Your task to perform on an android device: Open calendar and show me the second week of next month Image 0: 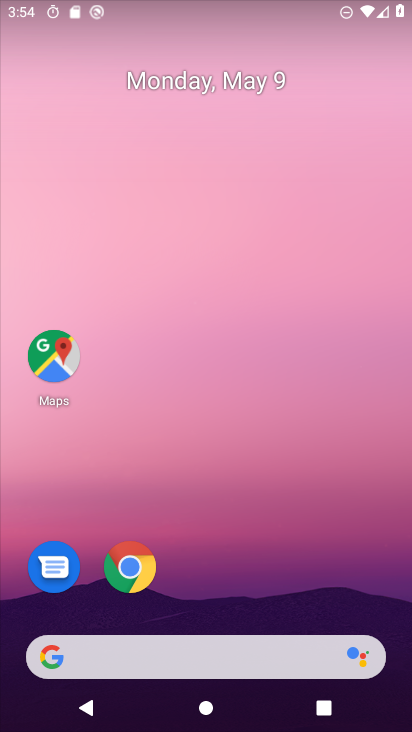
Step 0: click (227, 87)
Your task to perform on an android device: Open calendar and show me the second week of next month Image 1: 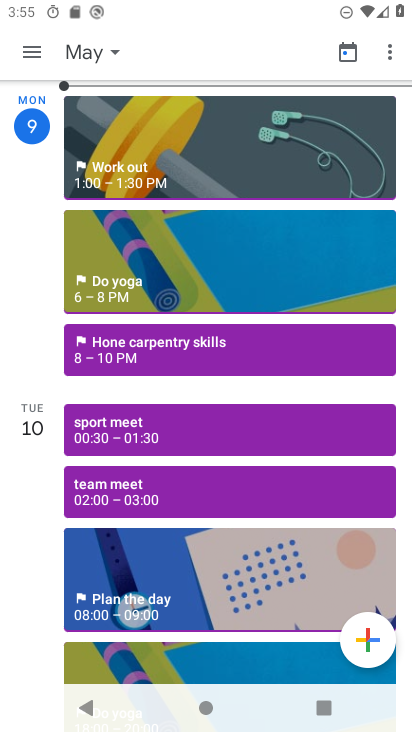
Step 1: click (109, 58)
Your task to perform on an android device: Open calendar and show me the second week of next month Image 2: 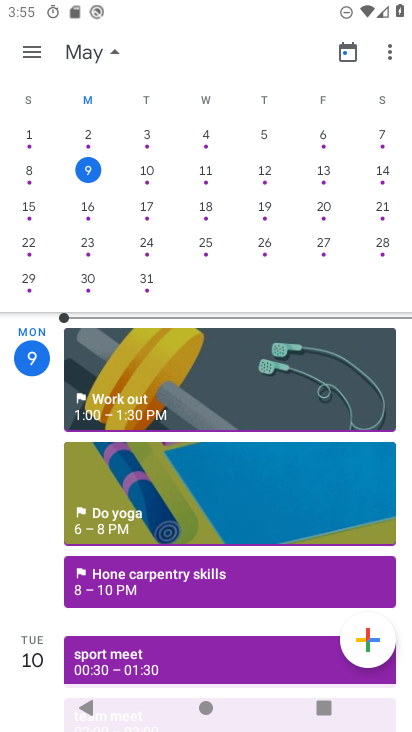
Step 2: click (30, 55)
Your task to perform on an android device: Open calendar and show me the second week of next month Image 3: 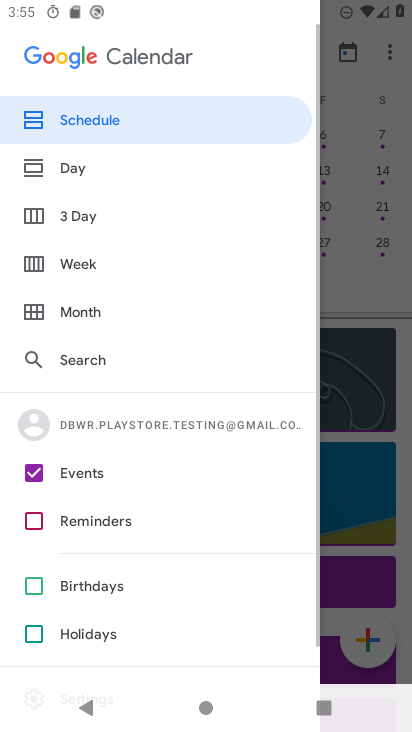
Step 3: click (75, 263)
Your task to perform on an android device: Open calendar and show me the second week of next month Image 4: 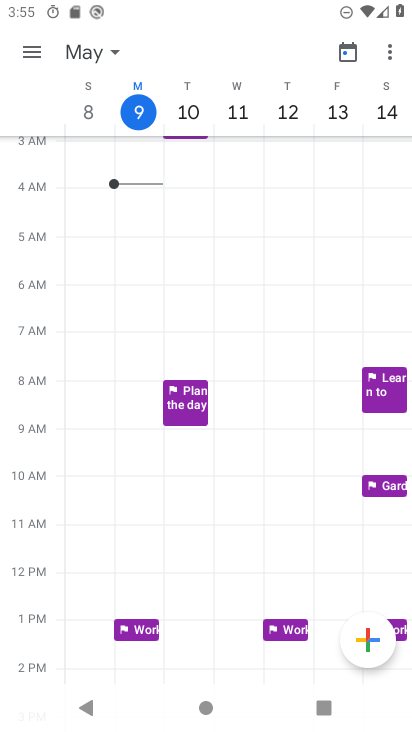
Step 4: click (103, 55)
Your task to perform on an android device: Open calendar and show me the second week of next month Image 5: 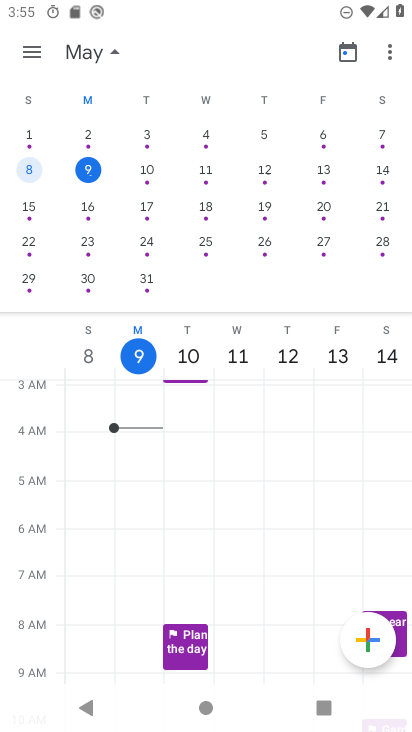
Step 5: drag from (293, 179) to (117, 207)
Your task to perform on an android device: Open calendar and show me the second week of next month Image 6: 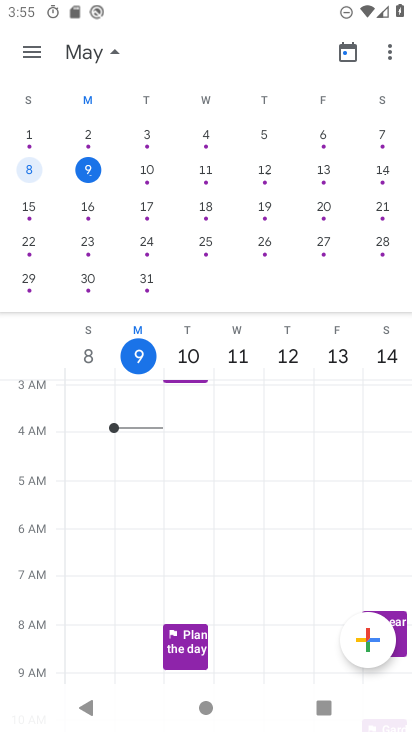
Step 6: drag from (340, 200) to (0, 182)
Your task to perform on an android device: Open calendar and show me the second week of next month Image 7: 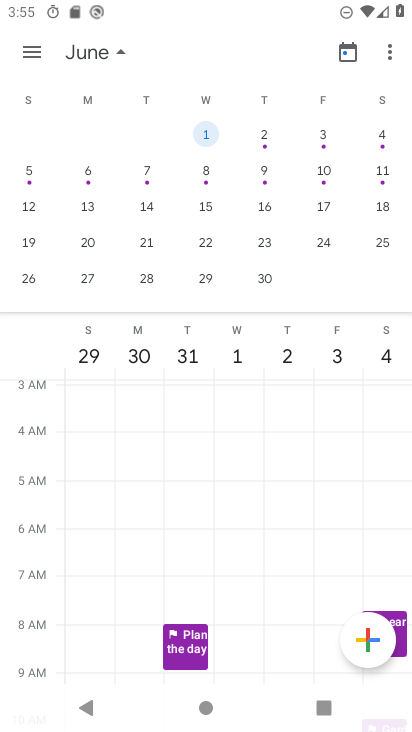
Step 7: click (88, 175)
Your task to perform on an android device: Open calendar and show me the second week of next month Image 8: 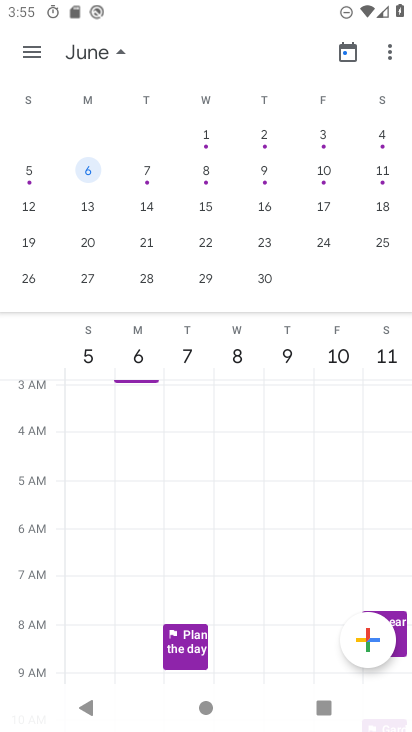
Step 8: task complete